Your task to perform on an android device: make emails show in primary in the gmail app Image 0: 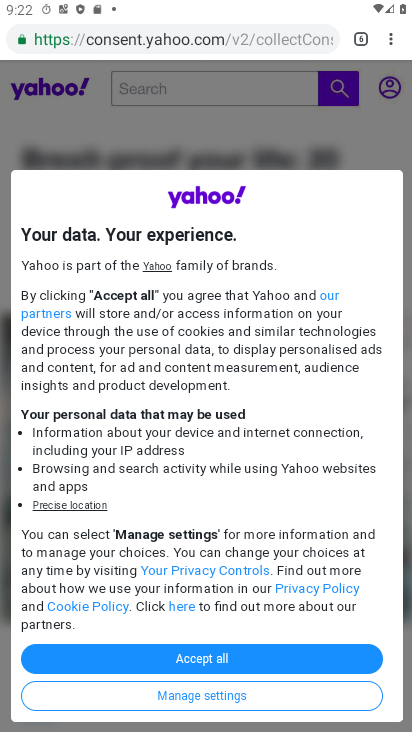
Step 0: press back button
Your task to perform on an android device: make emails show in primary in the gmail app Image 1: 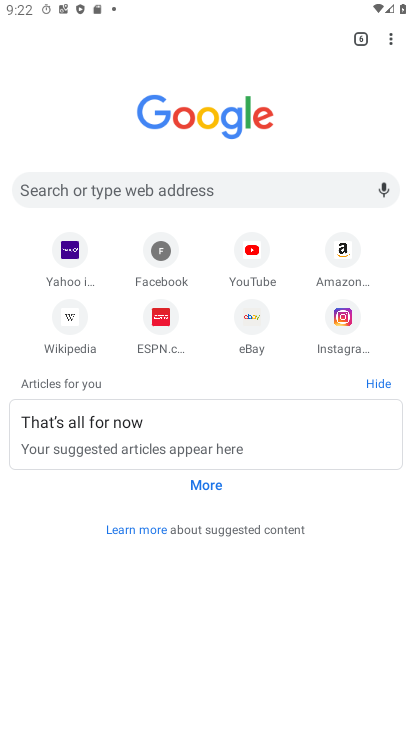
Step 1: press home button
Your task to perform on an android device: make emails show in primary in the gmail app Image 2: 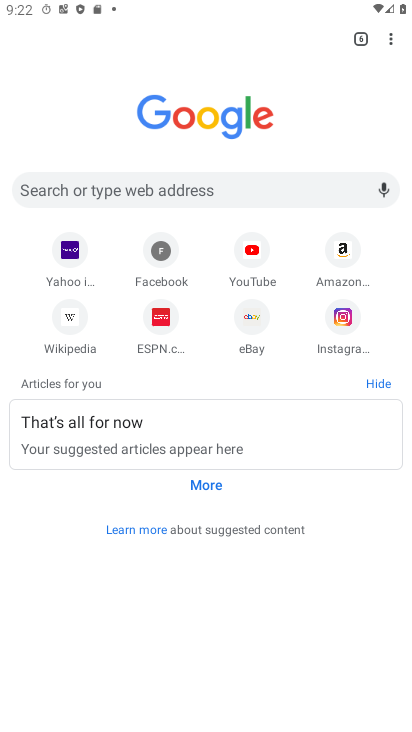
Step 2: press home button
Your task to perform on an android device: make emails show in primary in the gmail app Image 3: 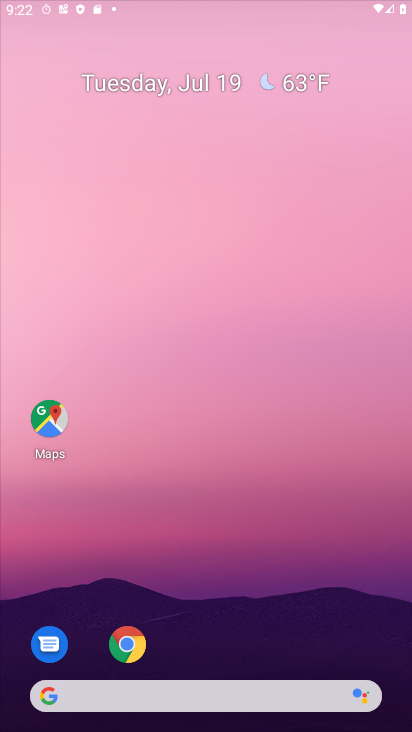
Step 3: press home button
Your task to perform on an android device: make emails show in primary in the gmail app Image 4: 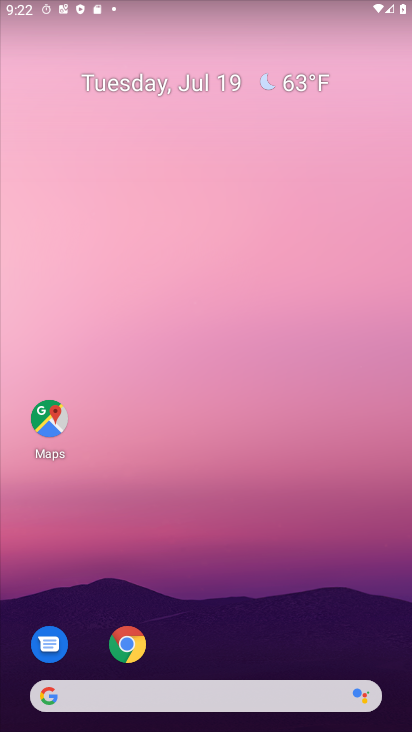
Step 4: drag from (205, 679) to (114, 112)
Your task to perform on an android device: make emails show in primary in the gmail app Image 5: 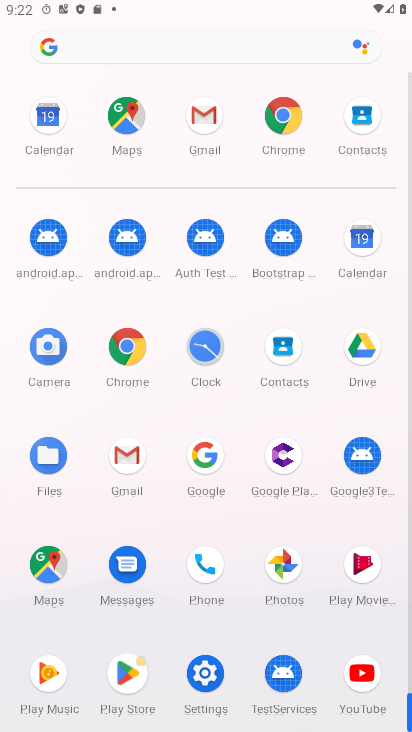
Step 5: click (123, 466)
Your task to perform on an android device: make emails show in primary in the gmail app Image 6: 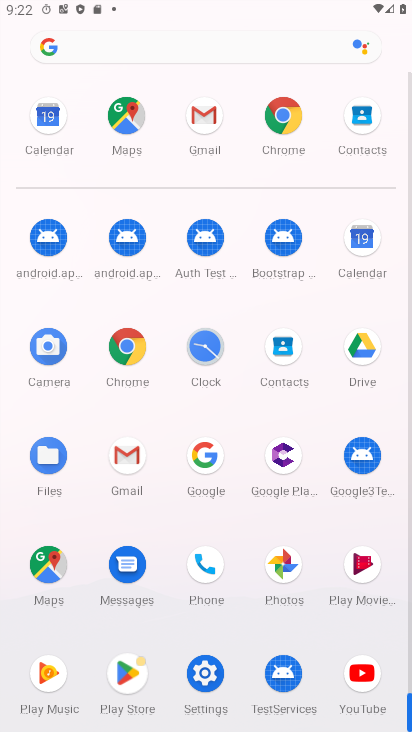
Step 6: click (141, 466)
Your task to perform on an android device: make emails show in primary in the gmail app Image 7: 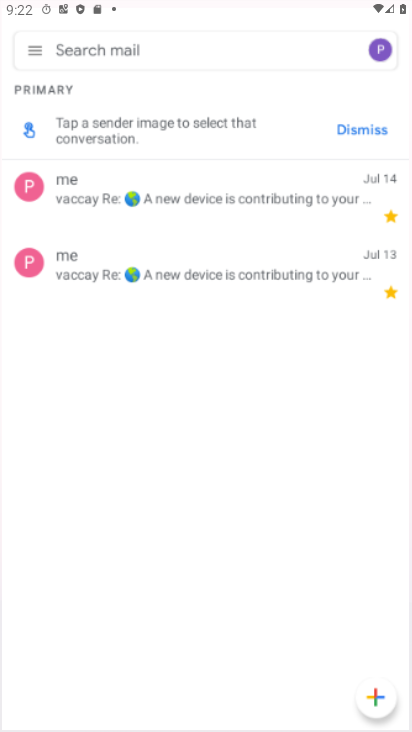
Step 7: click (142, 465)
Your task to perform on an android device: make emails show in primary in the gmail app Image 8: 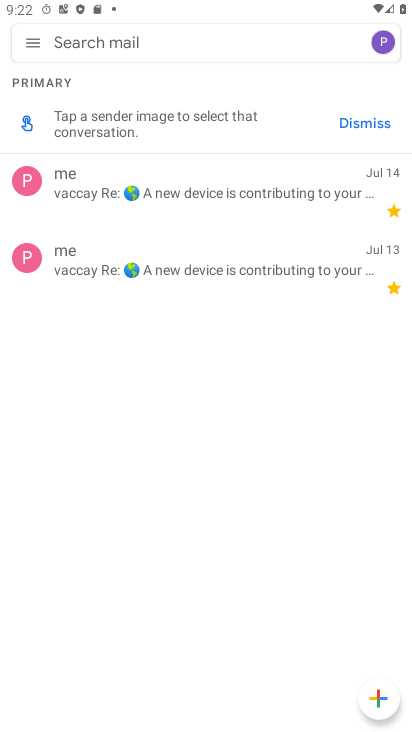
Step 8: click (27, 43)
Your task to perform on an android device: make emails show in primary in the gmail app Image 9: 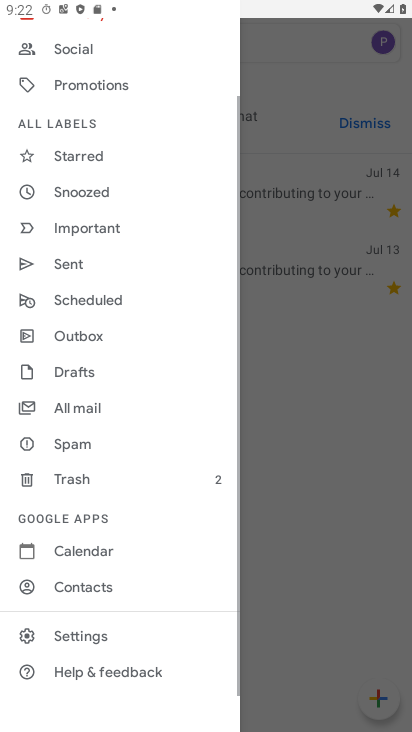
Step 9: click (314, 474)
Your task to perform on an android device: make emails show in primary in the gmail app Image 10: 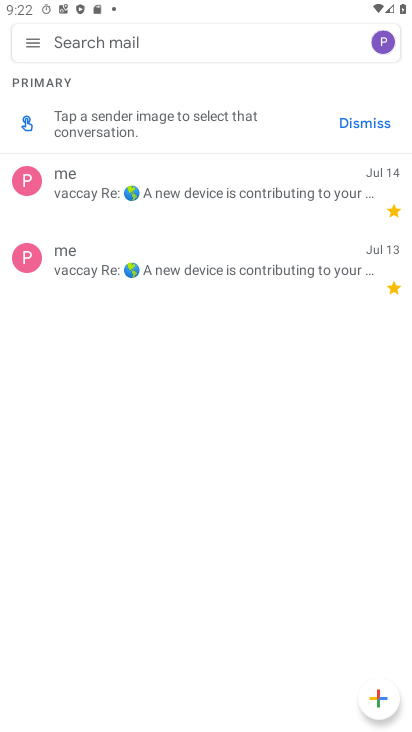
Step 10: task complete